Your task to perform on an android device: move a message to another label in the gmail app Image 0: 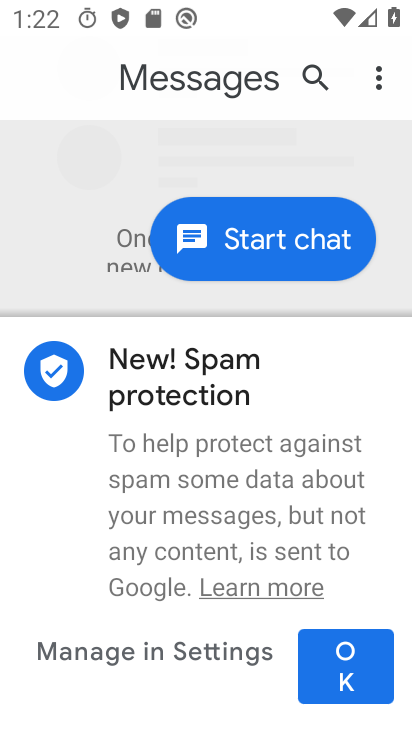
Step 0: press home button
Your task to perform on an android device: move a message to another label in the gmail app Image 1: 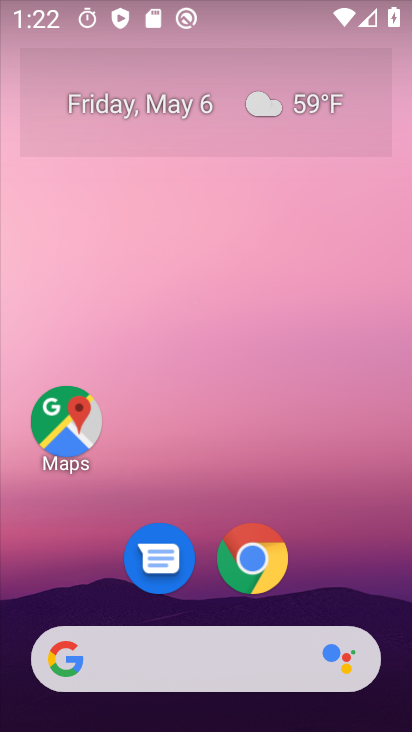
Step 1: drag from (230, 694) to (230, 188)
Your task to perform on an android device: move a message to another label in the gmail app Image 2: 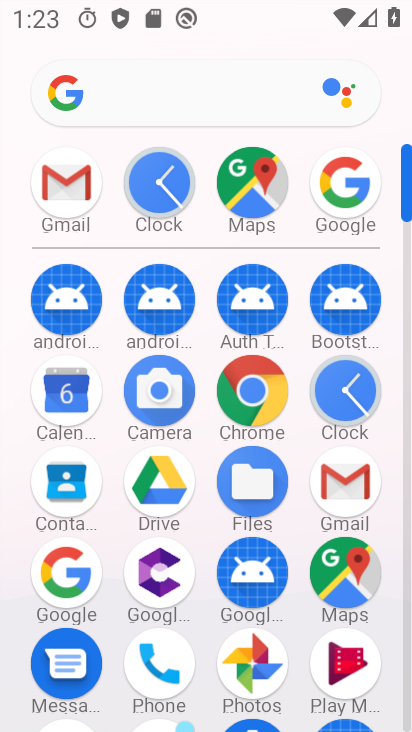
Step 2: click (348, 495)
Your task to perform on an android device: move a message to another label in the gmail app Image 3: 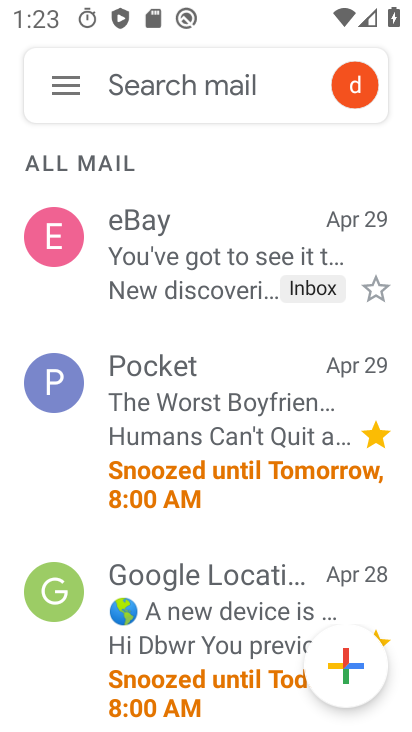
Step 3: click (227, 269)
Your task to perform on an android device: move a message to another label in the gmail app Image 4: 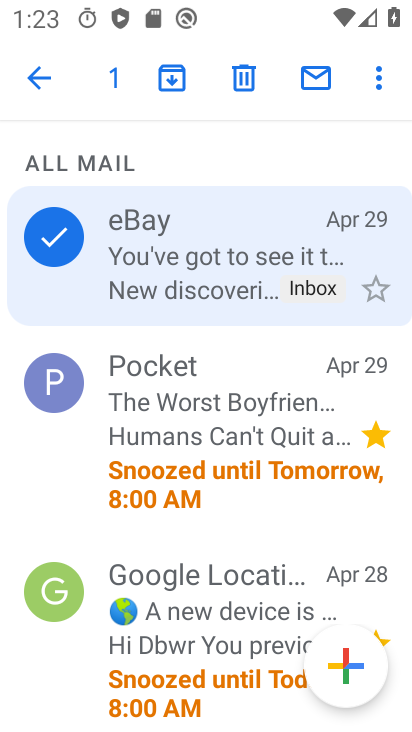
Step 4: click (380, 78)
Your task to perform on an android device: move a message to another label in the gmail app Image 5: 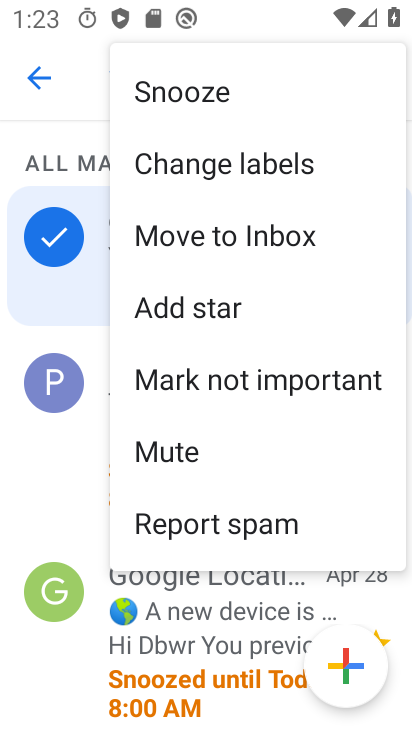
Step 5: click (183, 234)
Your task to perform on an android device: move a message to another label in the gmail app Image 6: 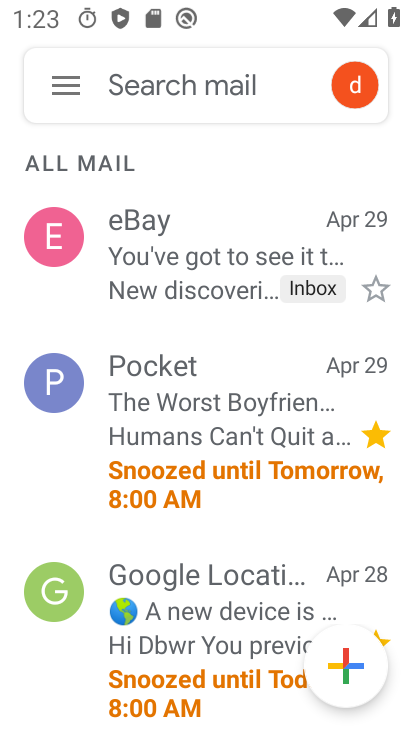
Step 6: task complete